Your task to perform on an android device: Go to privacy settings Image 0: 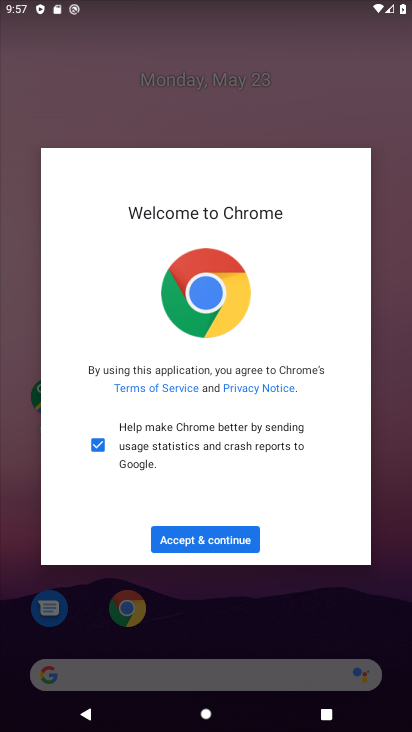
Step 0: click (225, 543)
Your task to perform on an android device: Go to privacy settings Image 1: 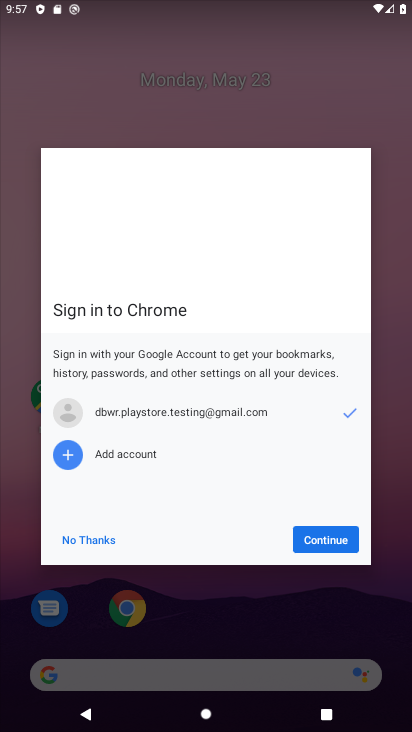
Step 1: click (348, 529)
Your task to perform on an android device: Go to privacy settings Image 2: 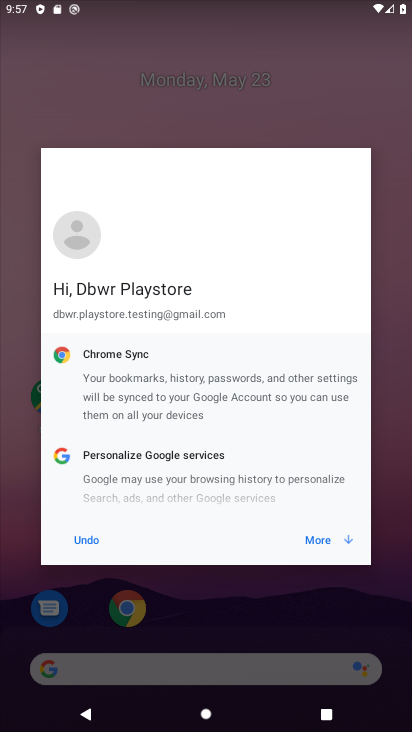
Step 2: click (337, 538)
Your task to perform on an android device: Go to privacy settings Image 3: 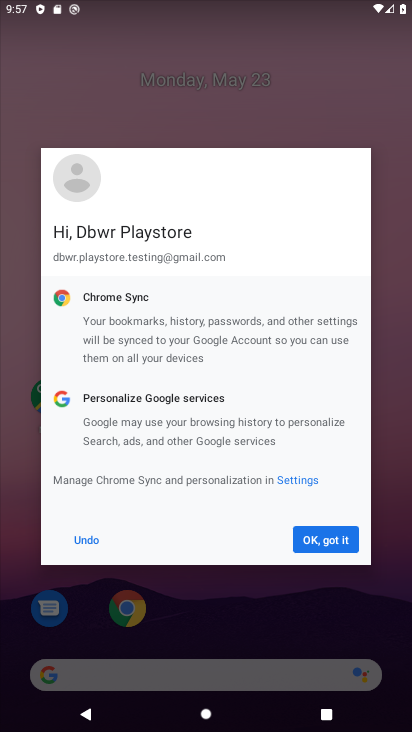
Step 3: click (336, 539)
Your task to perform on an android device: Go to privacy settings Image 4: 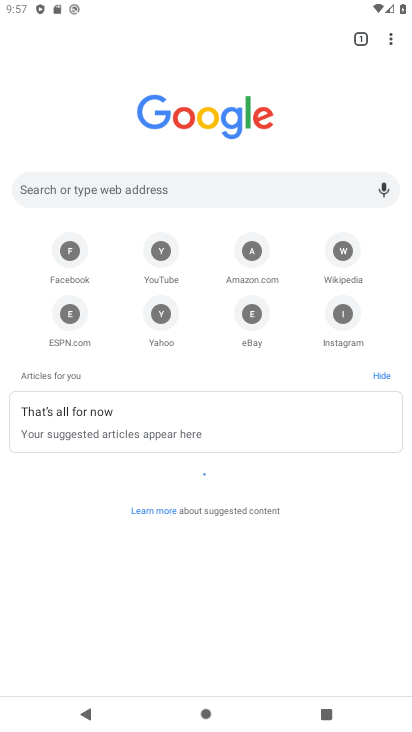
Step 4: drag from (402, 44) to (314, 319)
Your task to perform on an android device: Go to privacy settings Image 5: 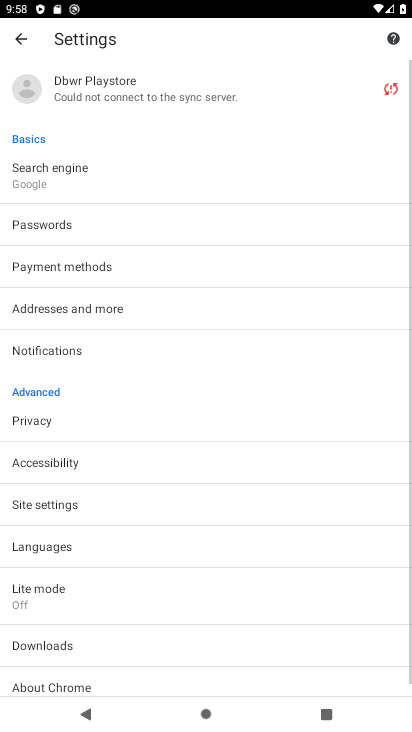
Step 5: click (100, 426)
Your task to perform on an android device: Go to privacy settings Image 6: 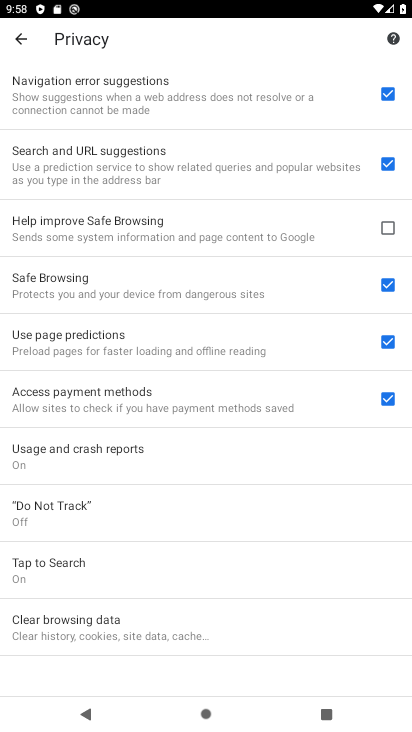
Step 6: task complete